Your task to perform on an android device: change your default location settings in chrome Image 0: 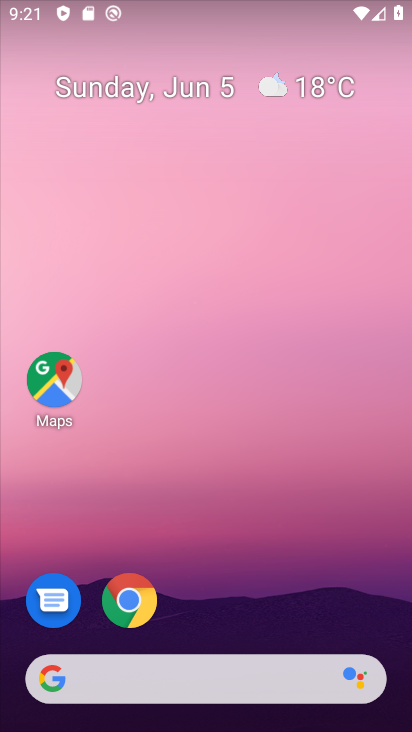
Step 0: click (132, 599)
Your task to perform on an android device: change your default location settings in chrome Image 1: 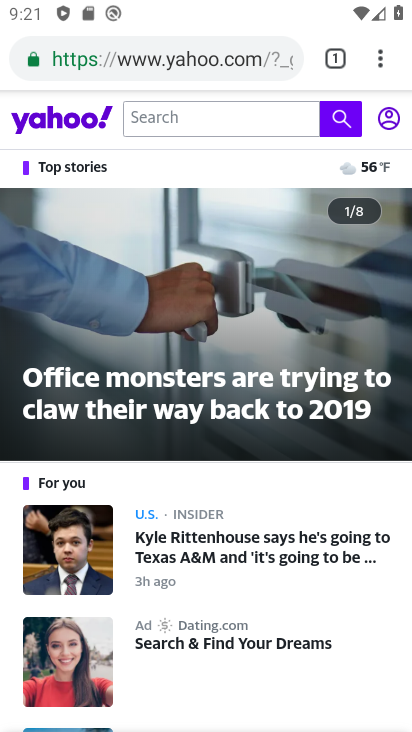
Step 1: click (382, 50)
Your task to perform on an android device: change your default location settings in chrome Image 2: 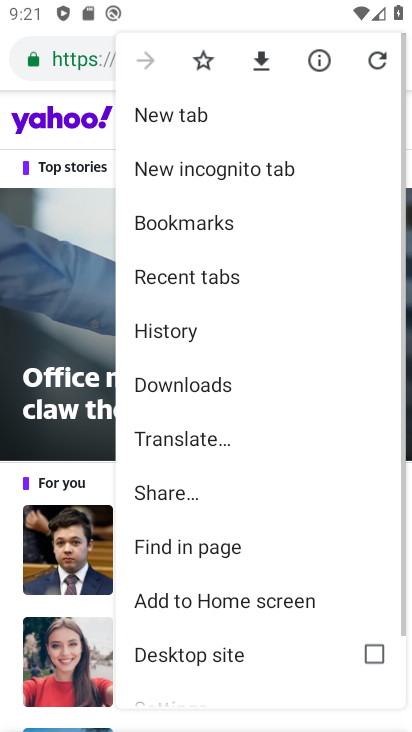
Step 2: drag from (216, 535) to (231, 132)
Your task to perform on an android device: change your default location settings in chrome Image 3: 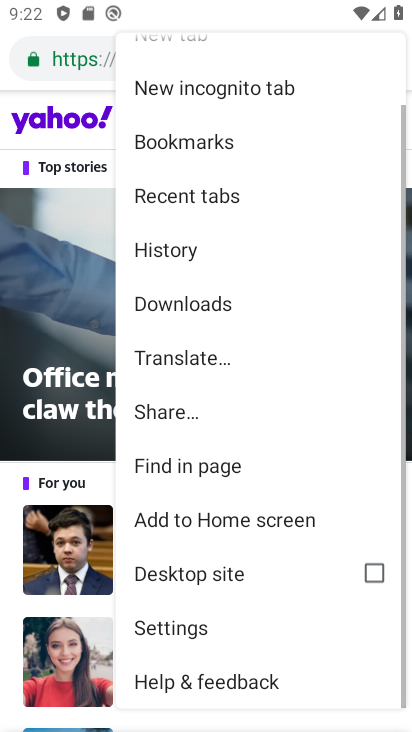
Step 3: click (187, 631)
Your task to perform on an android device: change your default location settings in chrome Image 4: 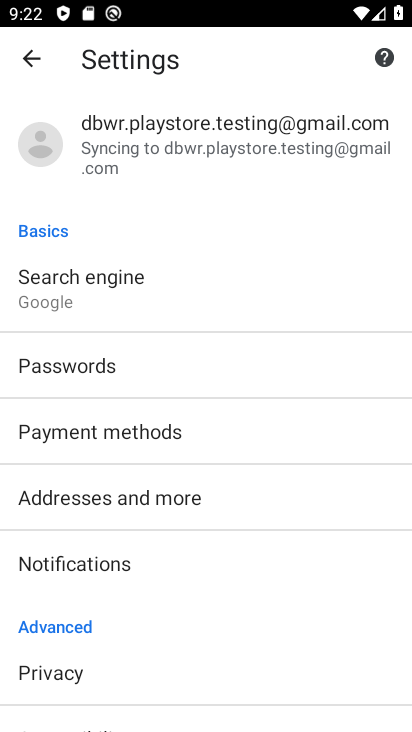
Step 4: click (135, 295)
Your task to perform on an android device: change your default location settings in chrome Image 5: 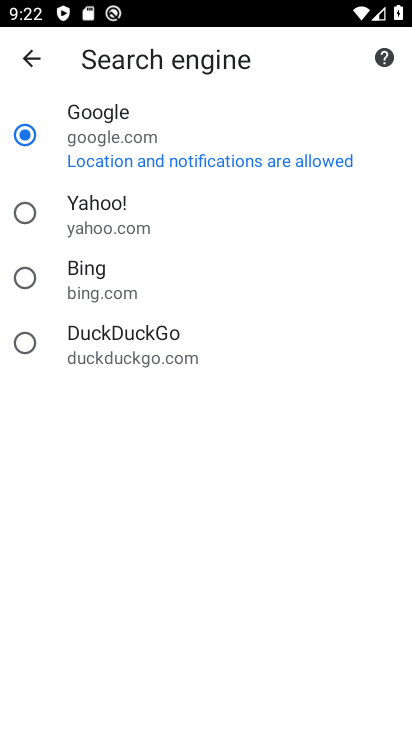
Step 5: click (36, 59)
Your task to perform on an android device: change your default location settings in chrome Image 6: 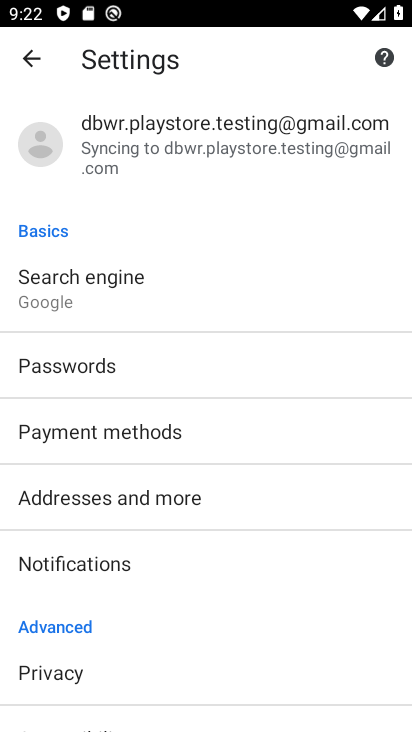
Step 6: drag from (176, 660) to (224, 179)
Your task to perform on an android device: change your default location settings in chrome Image 7: 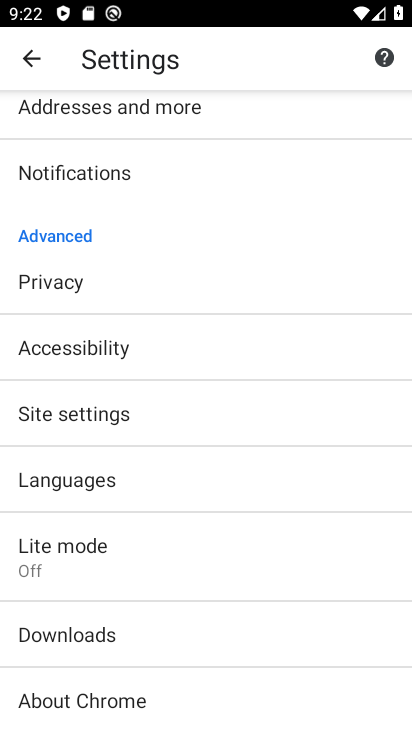
Step 7: click (70, 424)
Your task to perform on an android device: change your default location settings in chrome Image 8: 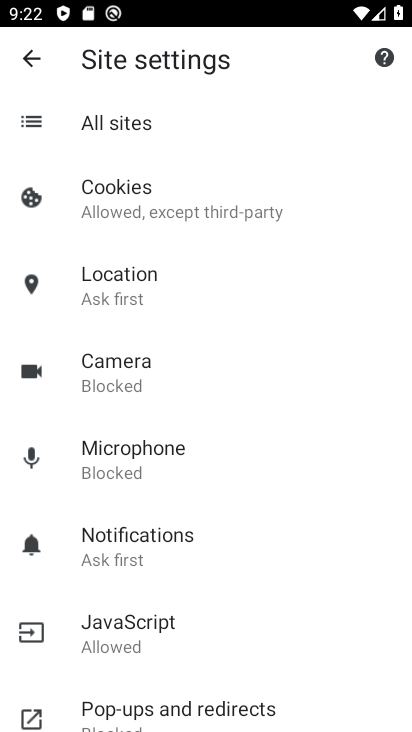
Step 8: drag from (222, 653) to (257, 582)
Your task to perform on an android device: change your default location settings in chrome Image 9: 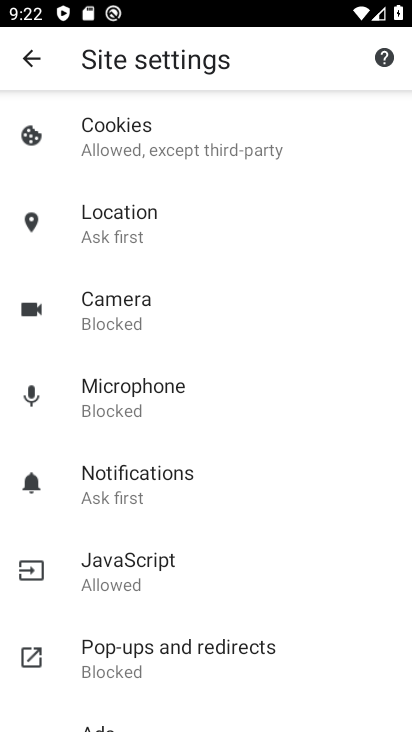
Step 9: click (114, 242)
Your task to perform on an android device: change your default location settings in chrome Image 10: 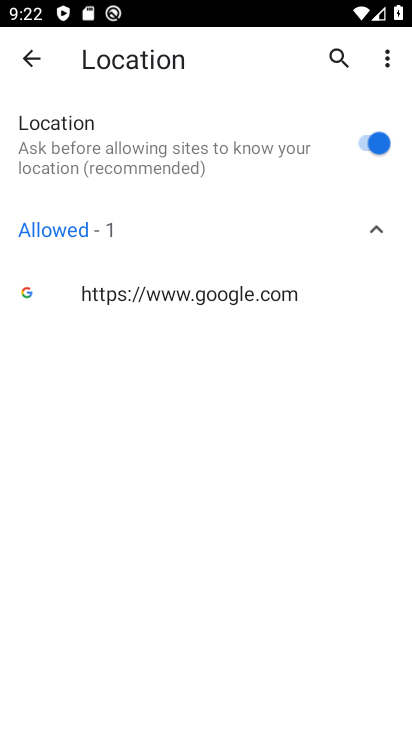
Step 10: click (371, 148)
Your task to perform on an android device: change your default location settings in chrome Image 11: 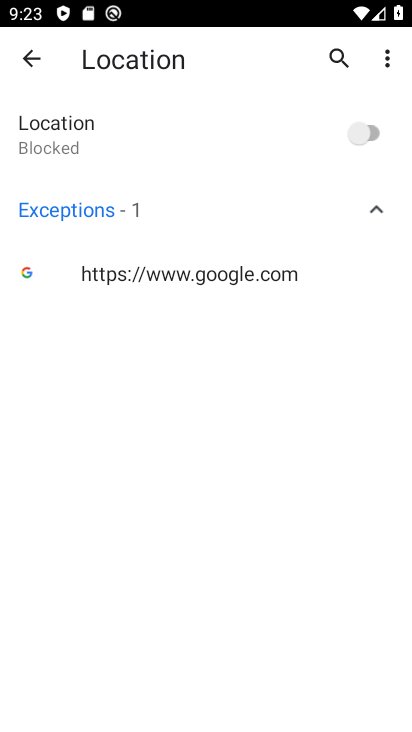
Step 11: task complete